Your task to perform on an android device: Go to sound settings Image 0: 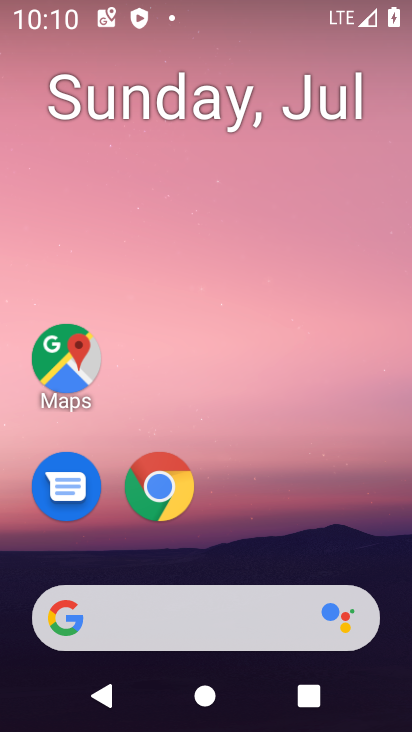
Step 0: press home button
Your task to perform on an android device: Go to sound settings Image 1: 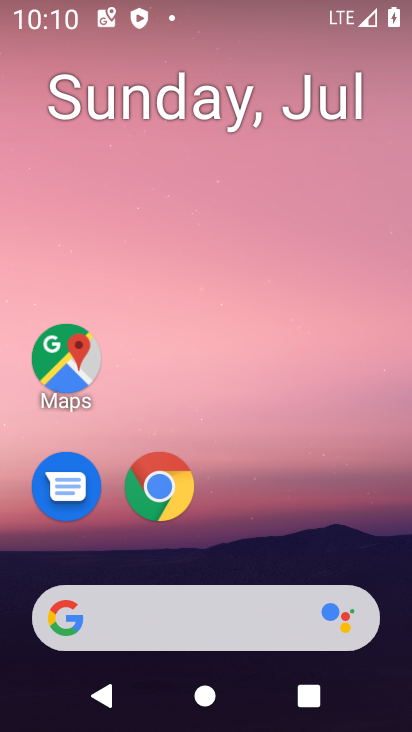
Step 1: drag from (335, 553) to (308, 86)
Your task to perform on an android device: Go to sound settings Image 2: 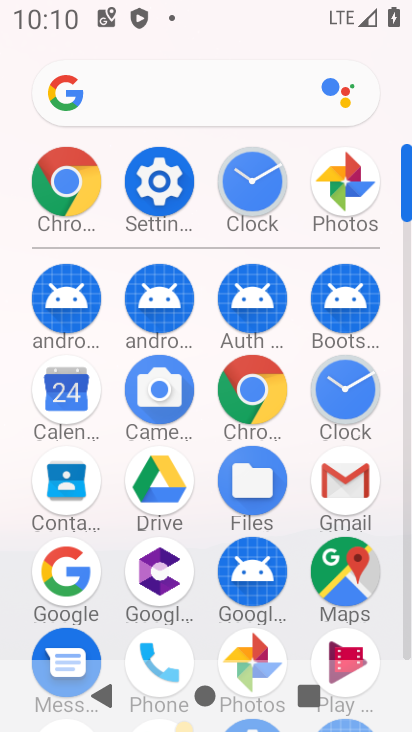
Step 2: click (164, 189)
Your task to perform on an android device: Go to sound settings Image 3: 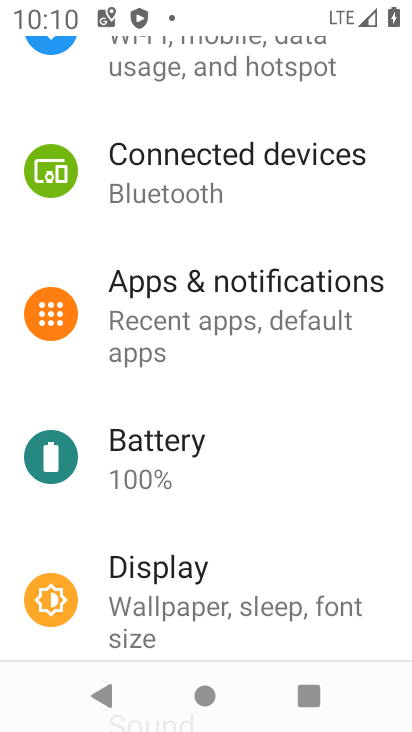
Step 3: drag from (373, 206) to (379, 320)
Your task to perform on an android device: Go to sound settings Image 4: 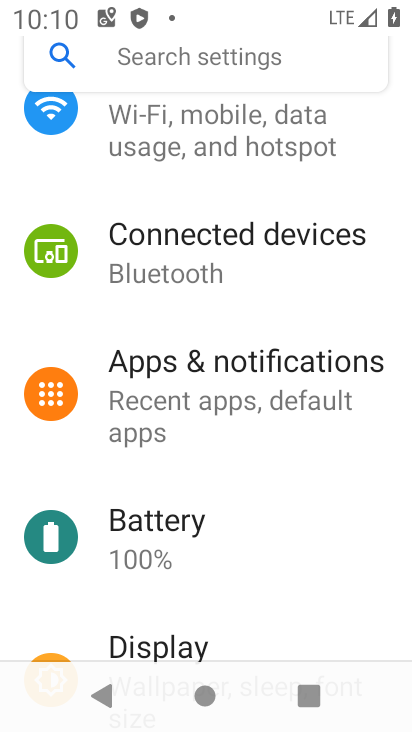
Step 4: drag from (388, 170) to (401, 275)
Your task to perform on an android device: Go to sound settings Image 5: 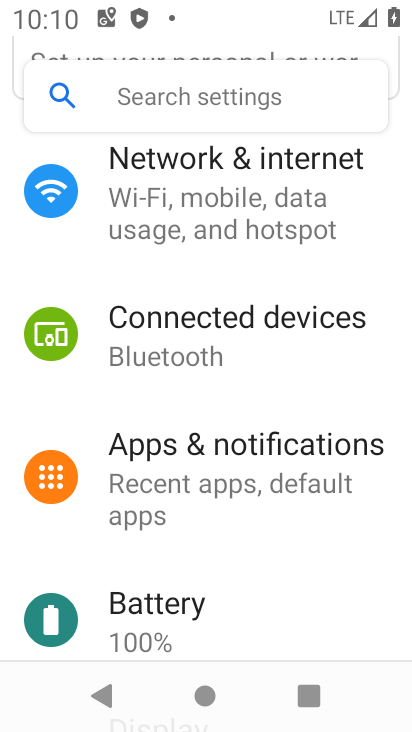
Step 5: drag from (376, 183) to (386, 351)
Your task to perform on an android device: Go to sound settings Image 6: 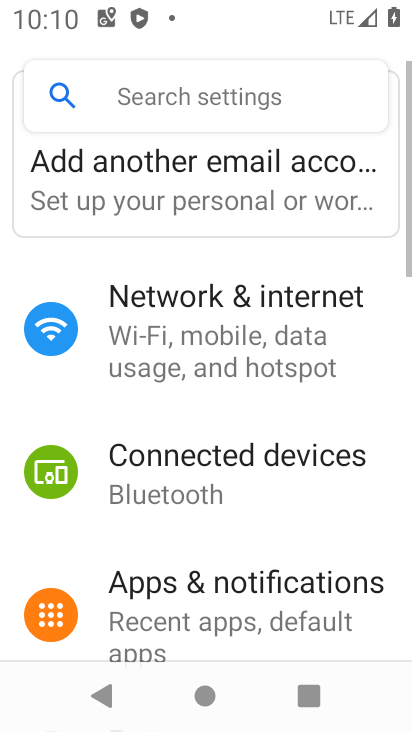
Step 6: drag from (381, 387) to (383, 280)
Your task to perform on an android device: Go to sound settings Image 7: 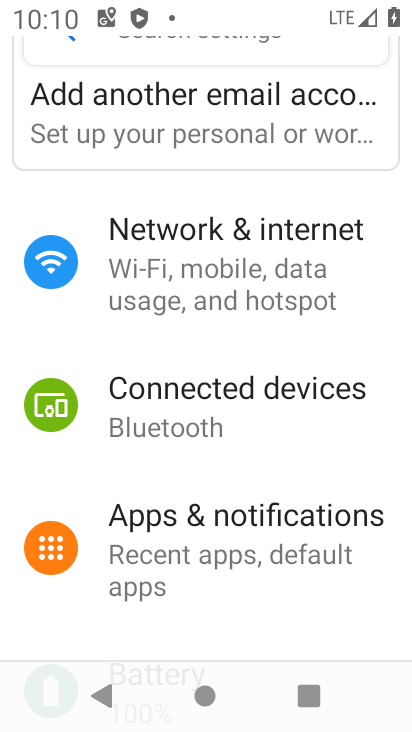
Step 7: drag from (377, 492) to (360, 375)
Your task to perform on an android device: Go to sound settings Image 8: 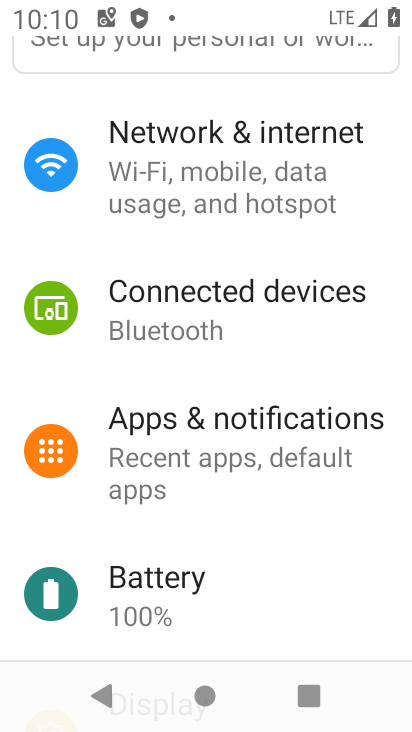
Step 8: drag from (363, 509) to (352, 387)
Your task to perform on an android device: Go to sound settings Image 9: 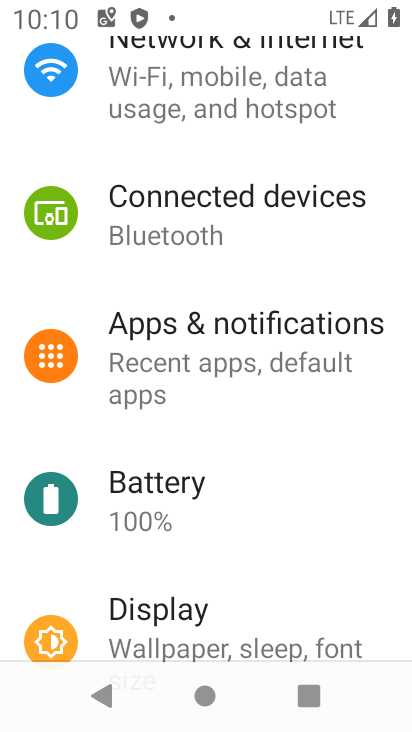
Step 9: drag from (343, 509) to (335, 368)
Your task to perform on an android device: Go to sound settings Image 10: 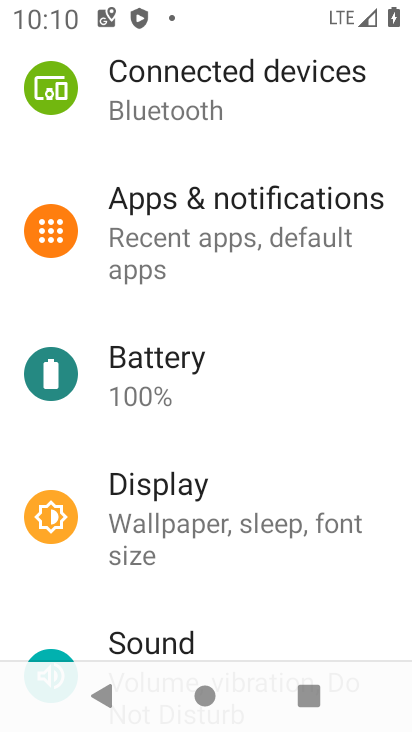
Step 10: drag from (342, 561) to (334, 421)
Your task to perform on an android device: Go to sound settings Image 11: 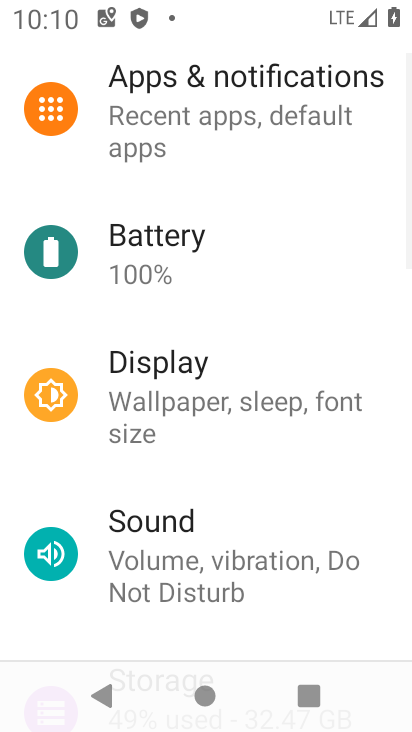
Step 11: drag from (332, 583) to (330, 394)
Your task to perform on an android device: Go to sound settings Image 12: 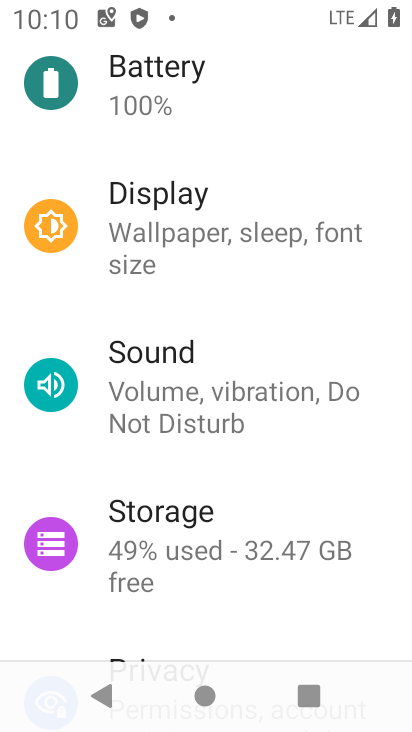
Step 12: click (282, 393)
Your task to perform on an android device: Go to sound settings Image 13: 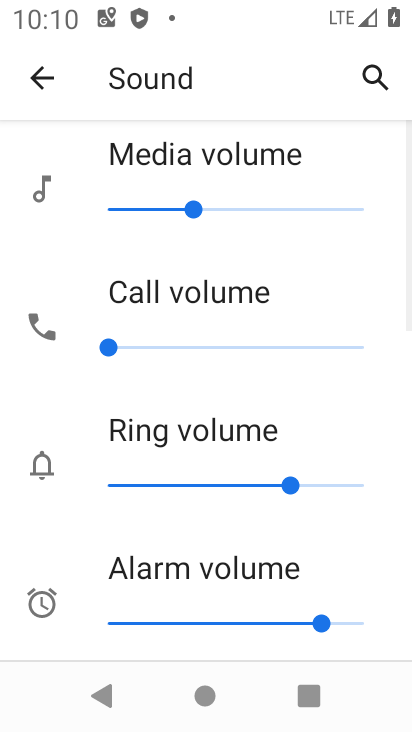
Step 13: task complete